Your task to perform on an android device: open a new tab in the chrome app Image 0: 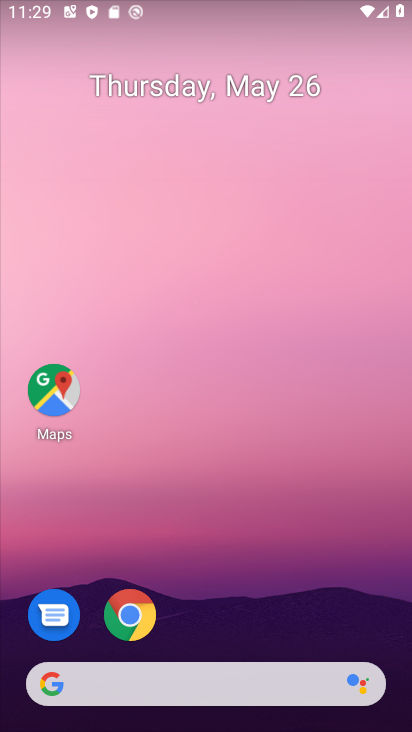
Step 0: drag from (274, 689) to (411, 225)
Your task to perform on an android device: open a new tab in the chrome app Image 1: 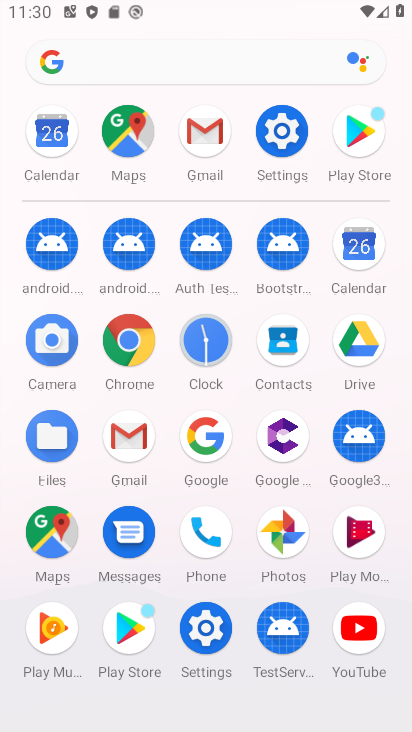
Step 1: click (135, 346)
Your task to perform on an android device: open a new tab in the chrome app Image 2: 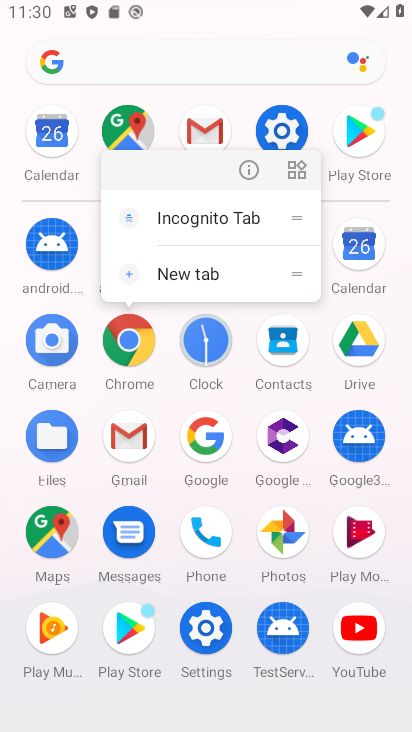
Step 2: click (148, 346)
Your task to perform on an android device: open a new tab in the chrome app Image 3: 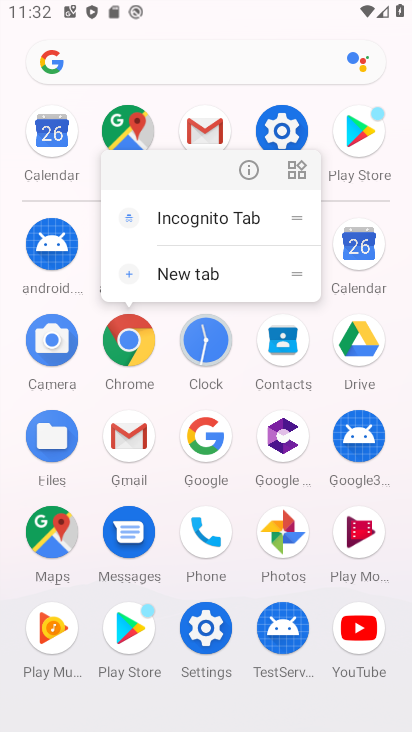
Step 3: click (142, 358)
Your task to perform on an android device: open a new tab in the chrome app Image 4: 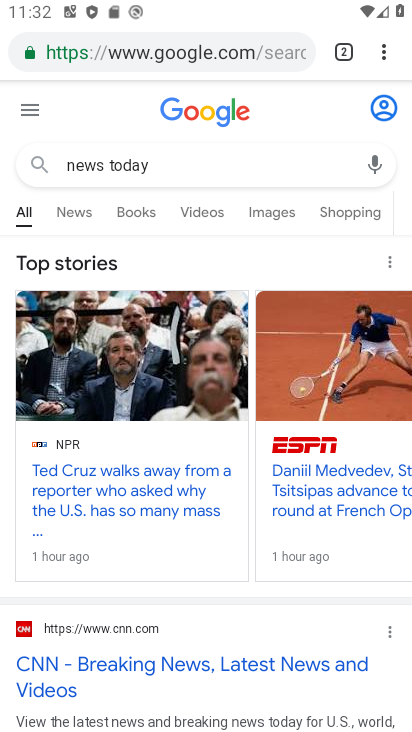
Step 4: task complete